Your task to perform on an android device: Go to internet settings Image 0: 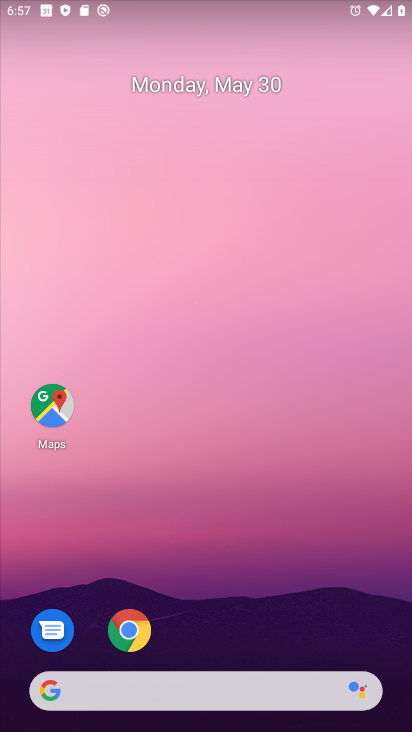
Step 0: drag from (319, 614) to (270, 5)
Your task to perform on an android device: Go to internet settings Image 1: 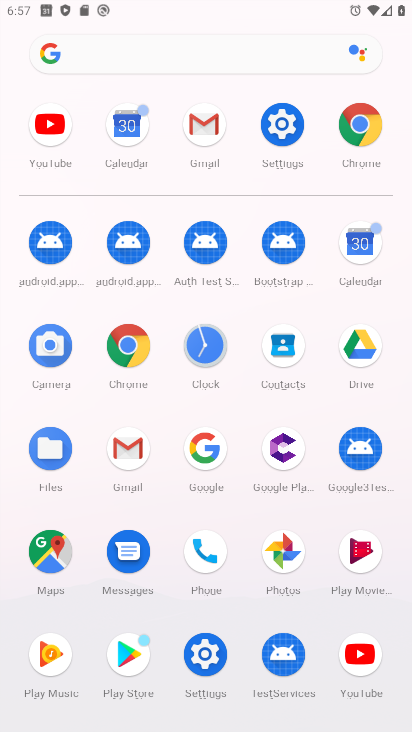
Step 1: click (290, 131)
Your task to perform on an android device: Go to internet settings Image 2: 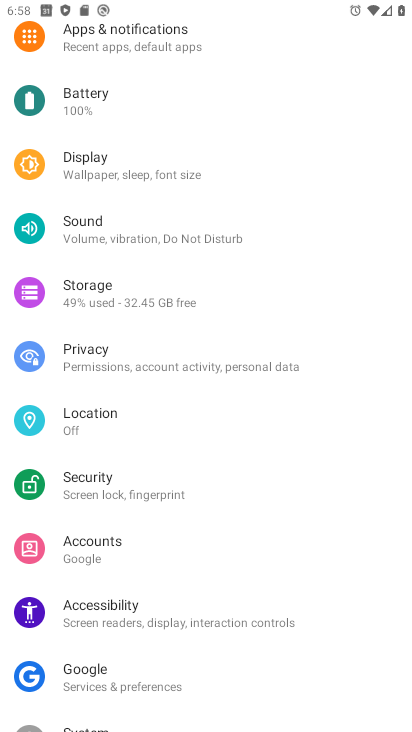
Step 2: drag from (161, 49) to (263, 564)
Your task to perform on an android device: Go to internet settings Image 3: 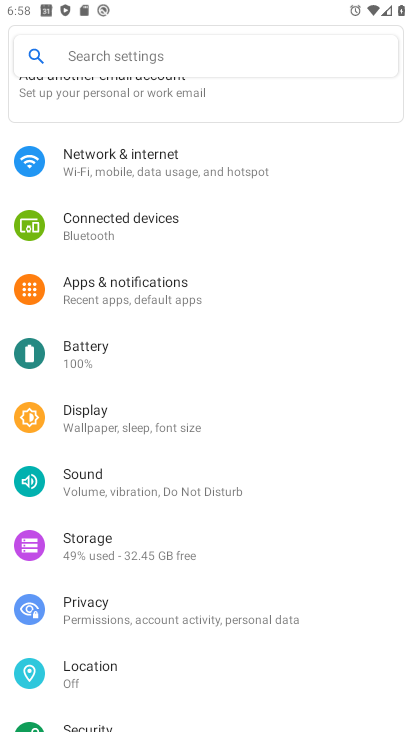
Step 3: click (185, 140)
Your task to perform on an android device: Go to internet settings Image 4: 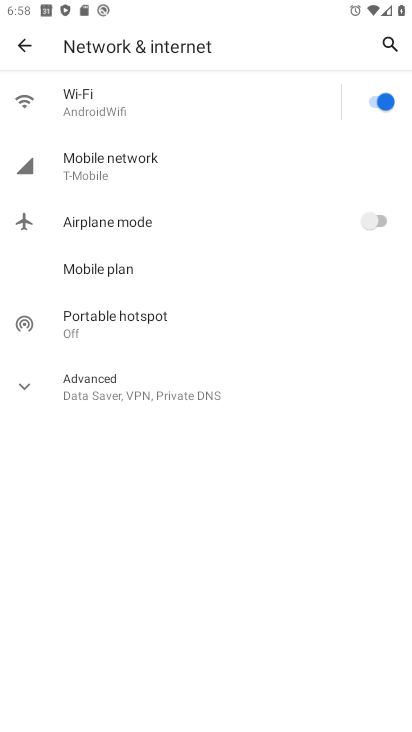
Step 4: task complete